Your task to perform on an android device: turn on airplane mode Image 0: 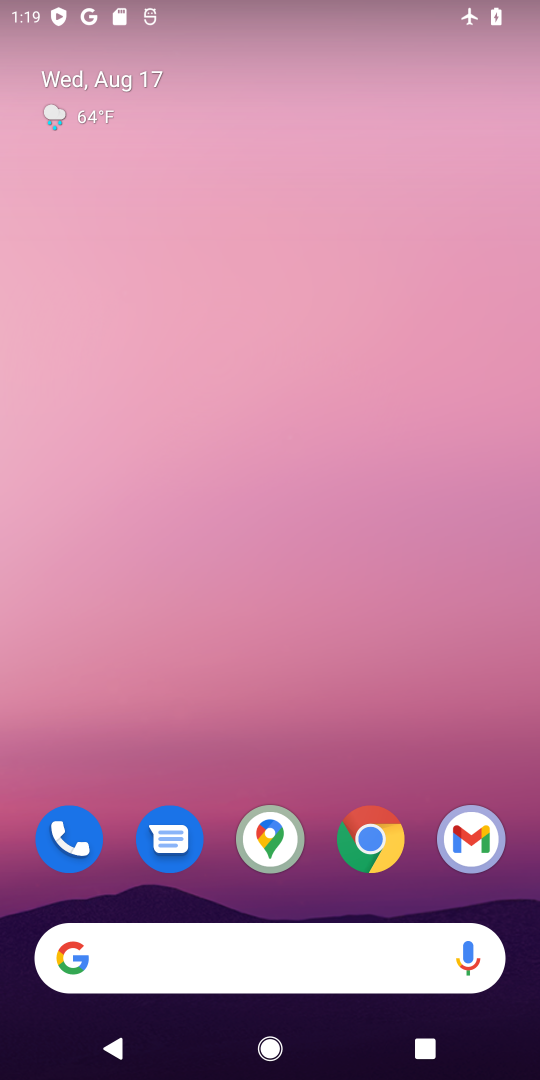
Step 0: drag from (158, 970) to (206, 272)
Your task to perform on an android device: turn on airplane mode Image 1: 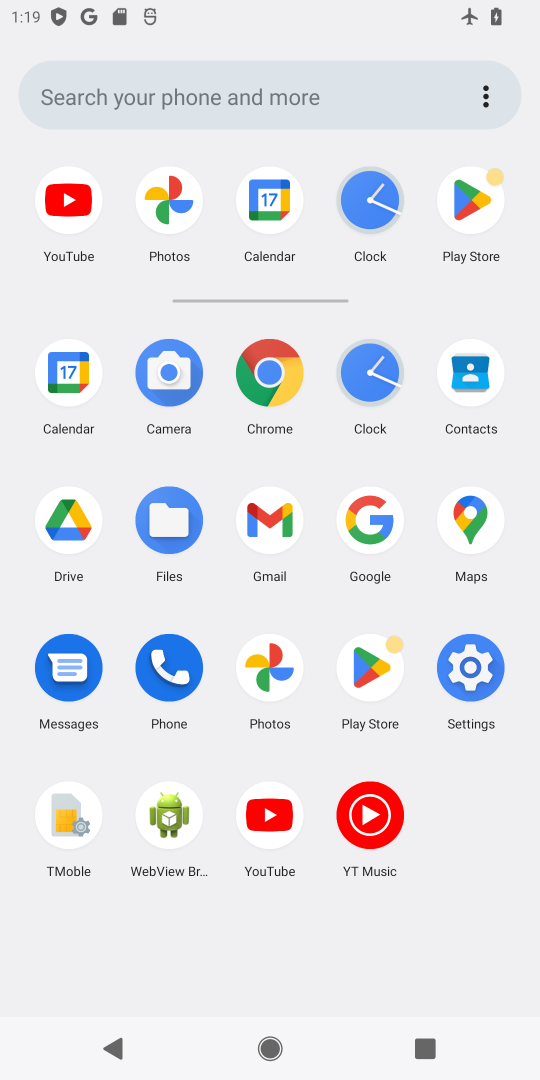
Step 1: click (471, 669)
Your task to perform on an android device: turn on airplane mode Image 2: 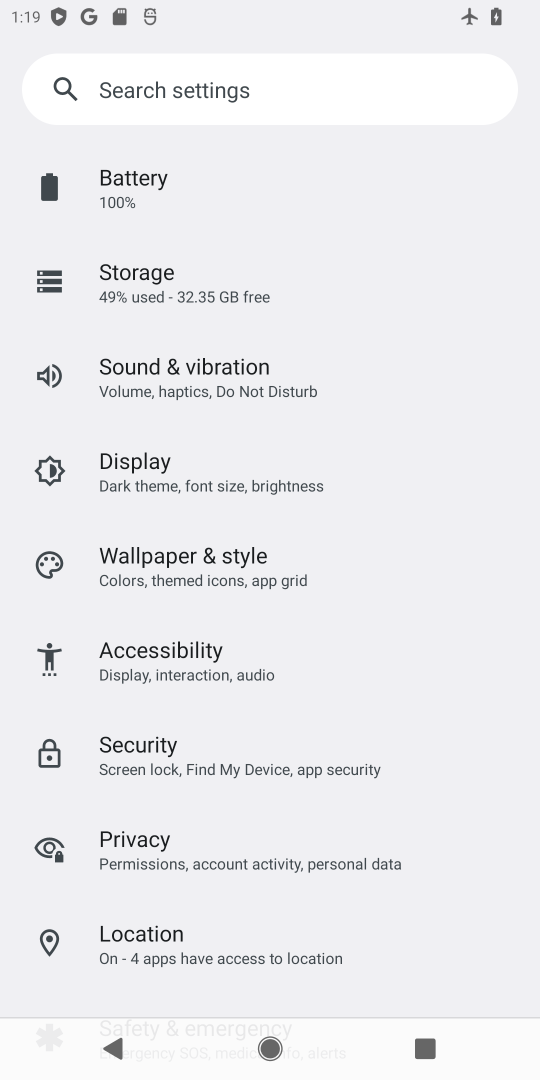
Step 2: drag from (306, 256) to (311, 528)
Your task to perform on an android device: turn on airplane mode Image 3: 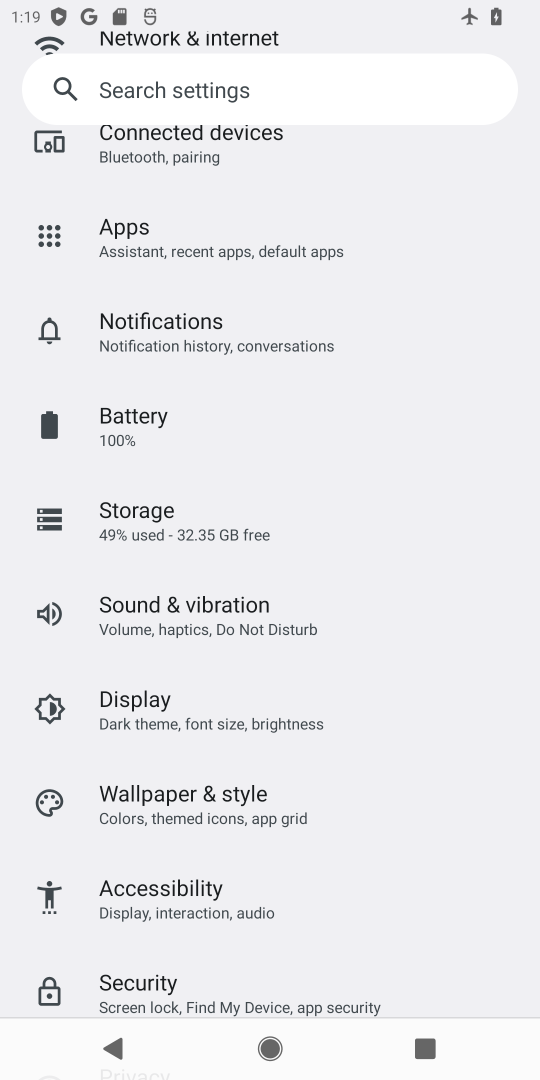
Step 3: drag from (250, 276) to (274, 733)
Your task to perform on an android device: turn on airplane mode Image 4: 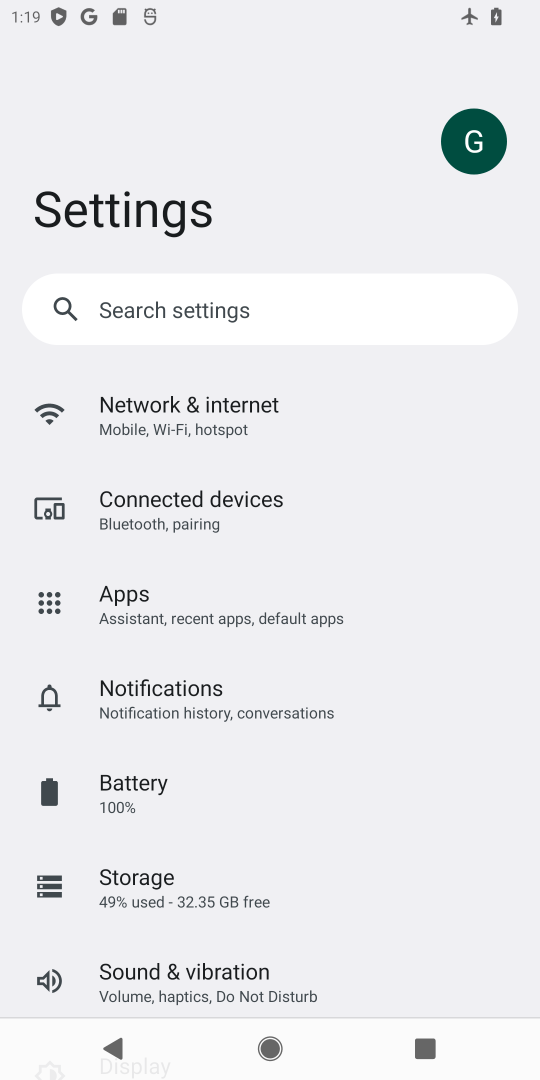
Step 4: click (223, 430)
Your task to perform on an android device: turn on airplane mode Image 5: 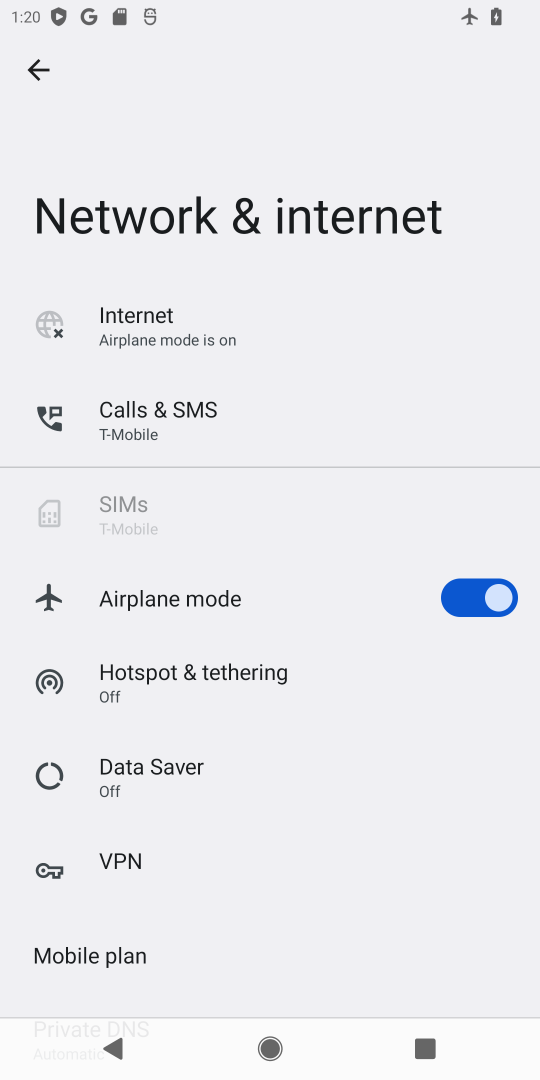
Step 5: task complete